Your task to perform on an android device: Show me productivity apps on the Play Store Image 0: 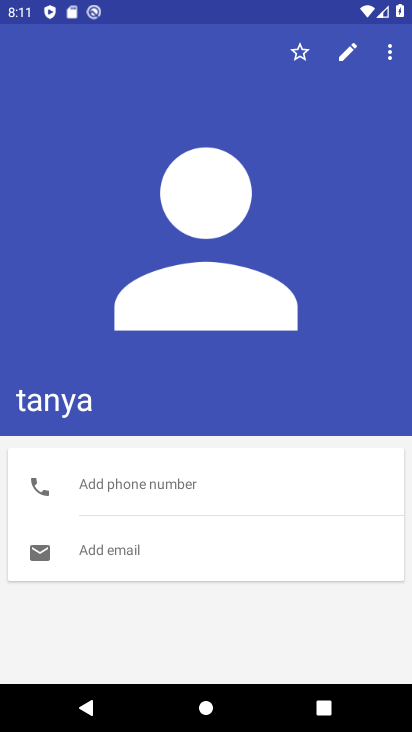
Step 0: press home button
Your task to perform on an android device: Show me productivity apps on the Play Store Image 1: 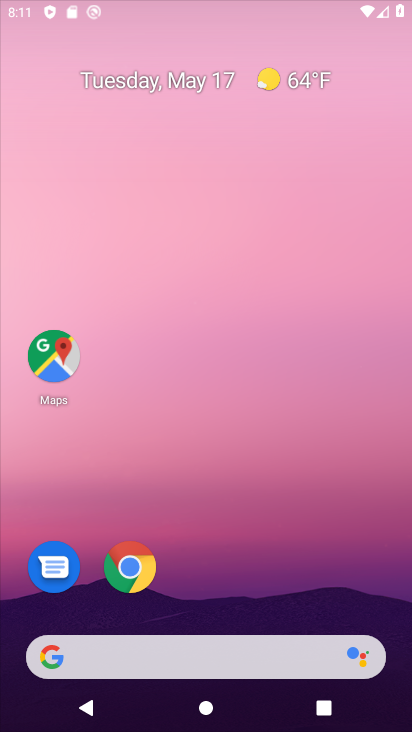
Step 1: drag from (393, 607) to (221, 65)
Your task to perform on an android device: Show me productivity apps on the Play Store Image 2: 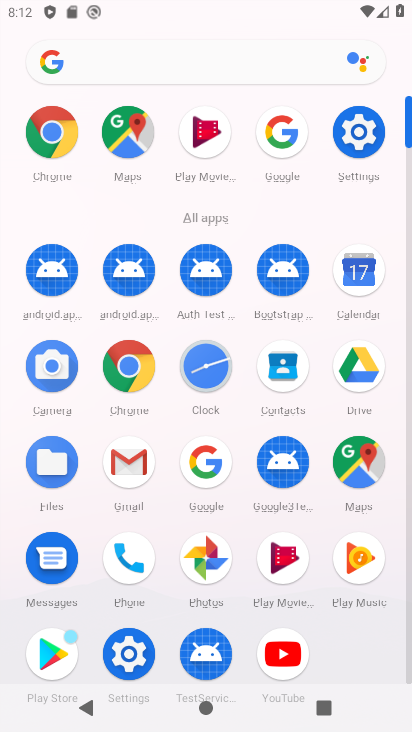
Step 2: click (60, 654)
Your task to perform on an android device: Show me productivity apps on the Play Store Image 3: 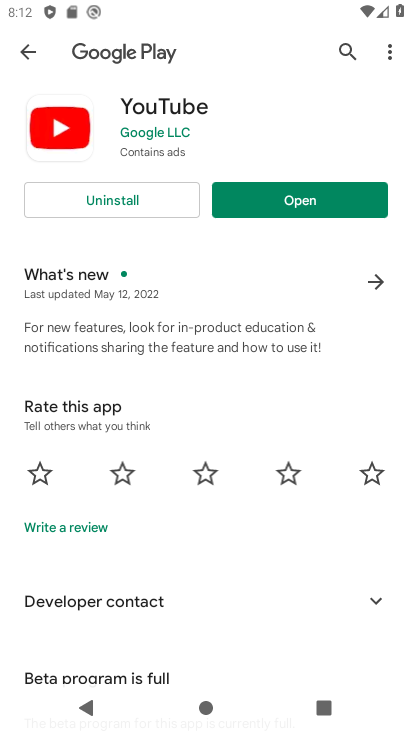
Step 3: press back button
Your task to perform on an android device: Show me productivity apps on the Play Store Image 4: 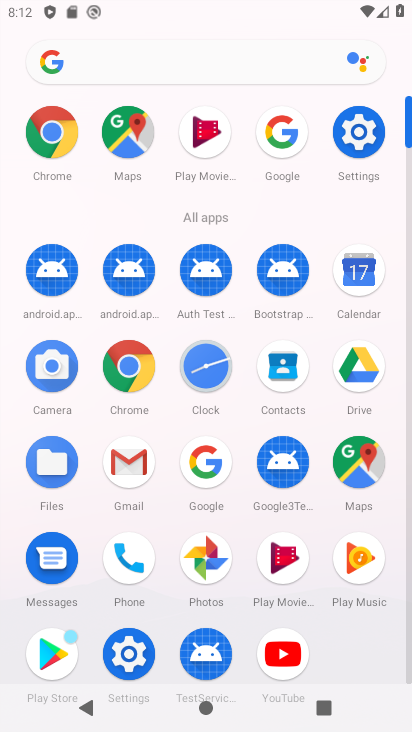
Step 4: click (47, 650)
Your task to perform on an android device: Show me productivity apps on the Play Store Image 5: 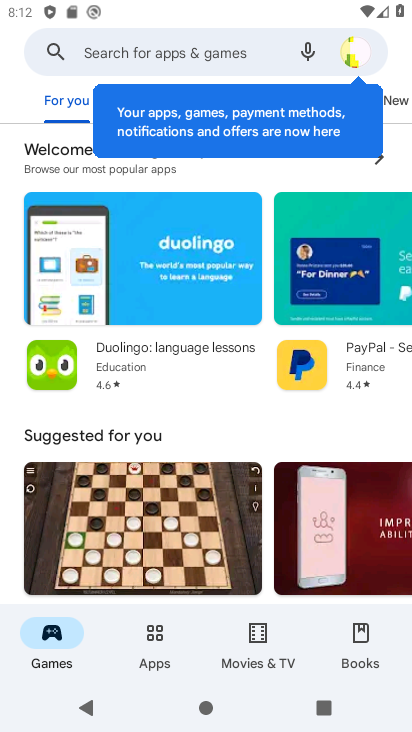
Step 5: task complete